Your task to perform on an android device: Go to display settings Image 0: 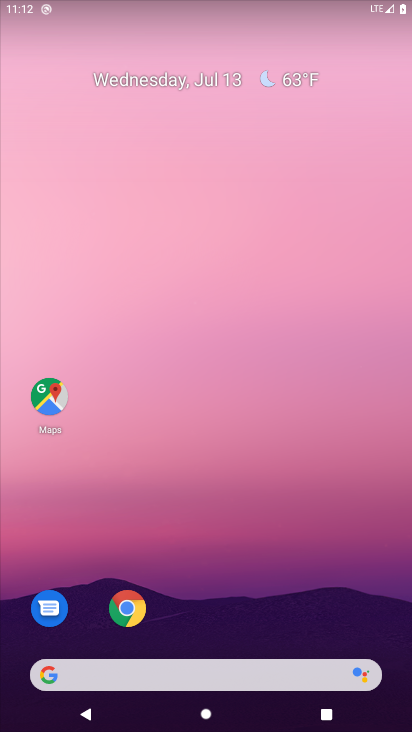
Step 0: drag from (292, 600) to (401, 723)
Your task to perform on an android device: Go to display settings Image 1: 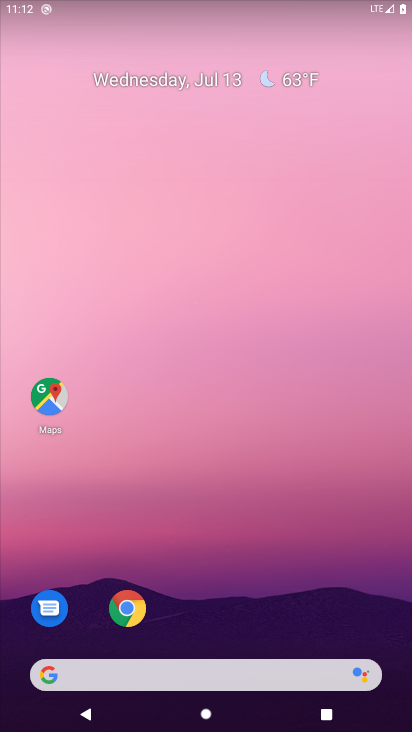
Step 1: drag from (336, 526) to (406, 473)
Your task to perform on an android device: Go to display settings Image 2: 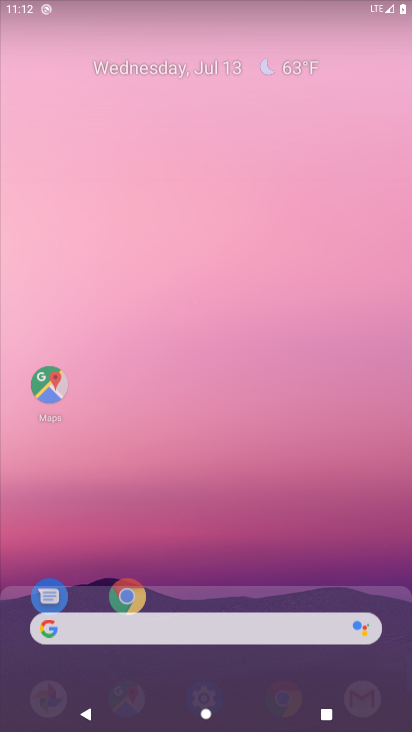
Step 2: click (301, 226)
Your task to perform on an android device: Go to display settings Image 3: 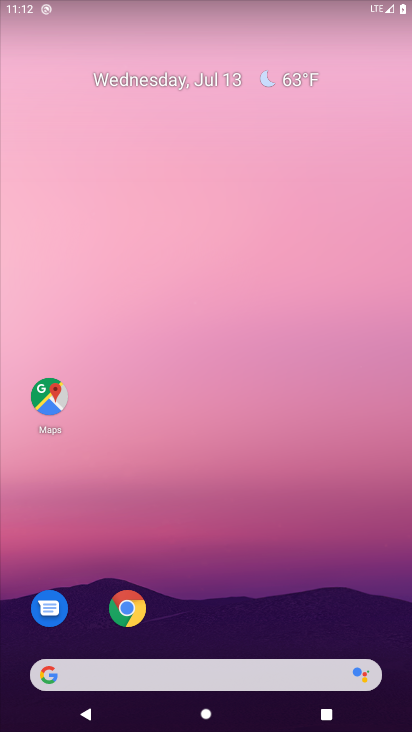
Step 3: drag from (321, 602) to (363, 86)
Your task to perform on an android device: Go to display settings Image 4: 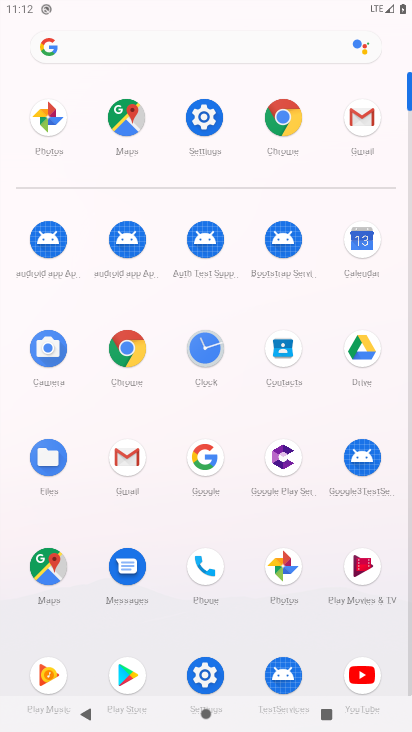
Step 4: click (211, 110)
Your task to perform on an android device: Go to display settings Image 5: 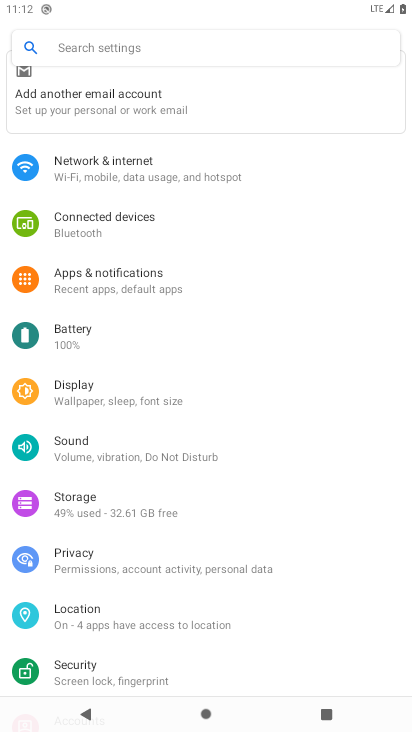
Step 5: click (101, 395)
Your task to perform on an android device: Go to display settings Image 6: 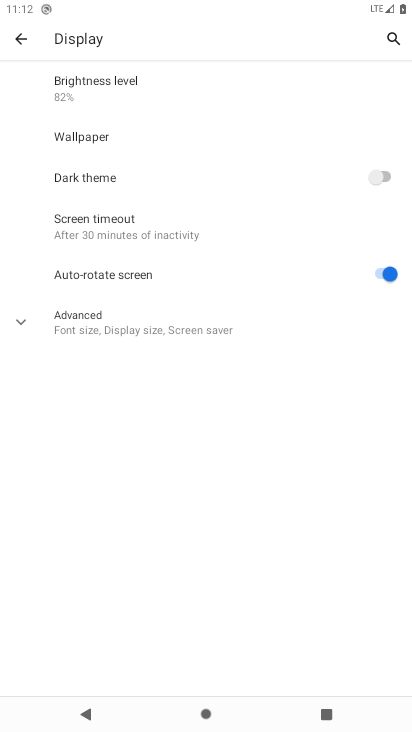
Step 6: task complete